Your task to perform on an android device: Open Google Chrome Image 0: 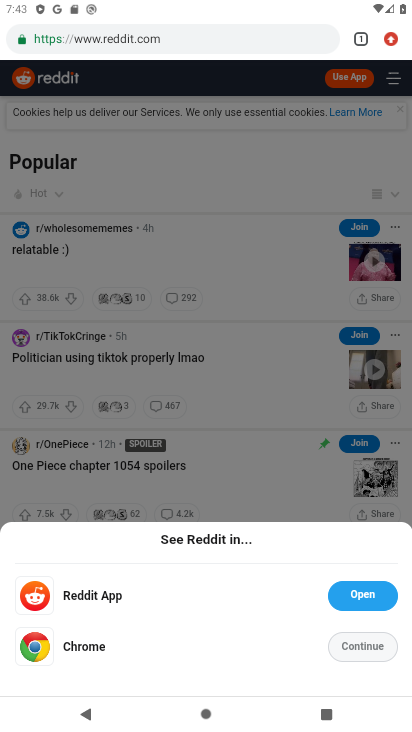
Step 0: press home button
Your task to perform on an android device: Open Google Chrome Image 1: 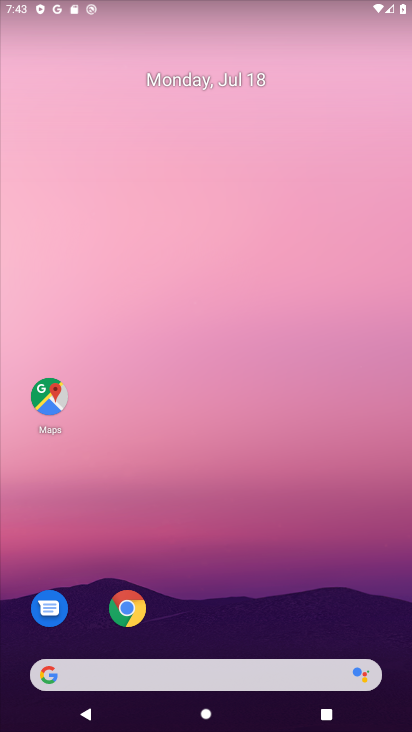
Step 1: click (129, 611)
Your task to perform on an android device: Open Google Chrome Image 2: 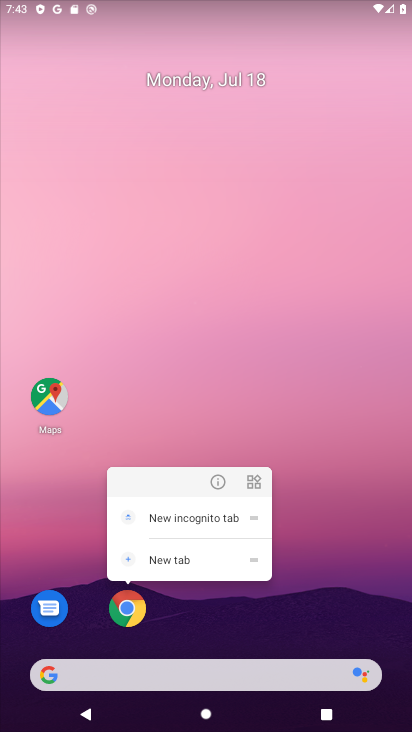
Step 2: click (129, 611)
Your task to perform on an android device: Open Google Chrome Image 3: 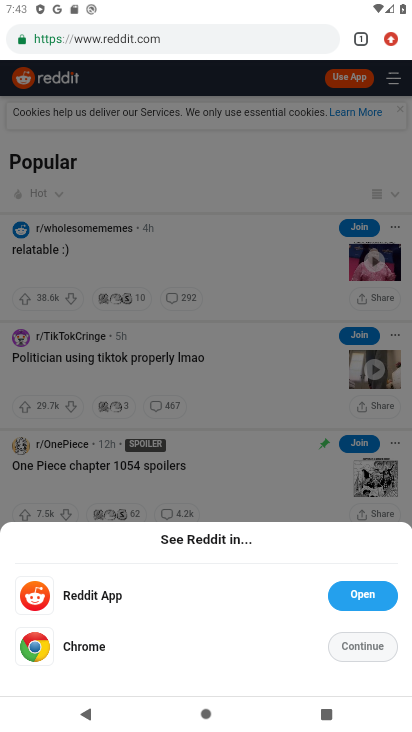
Step 3: task complete